Your task to perform on an android device: Go to Yahoo.com Image 0: 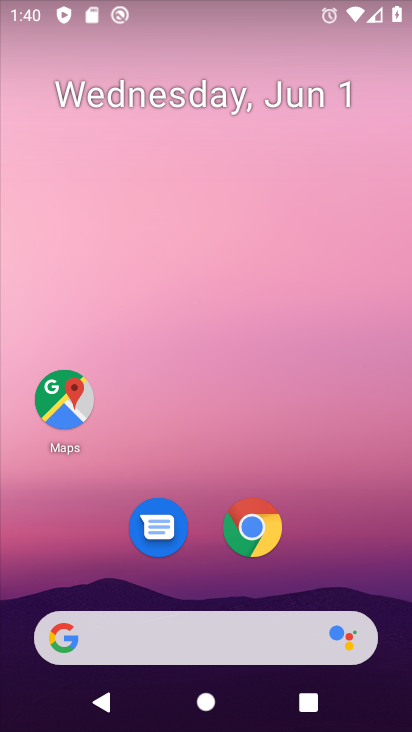
Step 0: click (263, 523)
Your task to perform on an android device: Go to Yahoo.com Image 1: 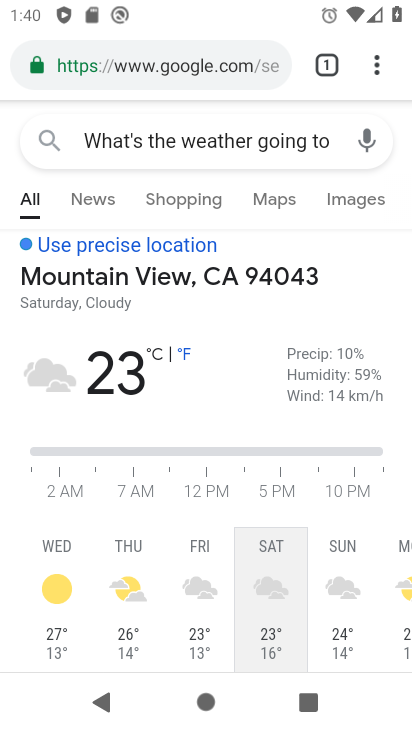
Step 1: click (214, 57)
Your task to perform on an android device: Go to Yahoo.com Image 2: 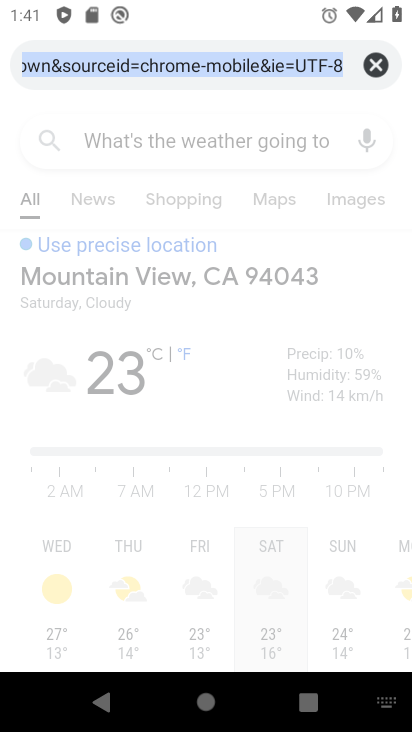
Step 2: type "yahoo.com"
Your task to perform on an android device: Go to Yahoo.com Image 3: 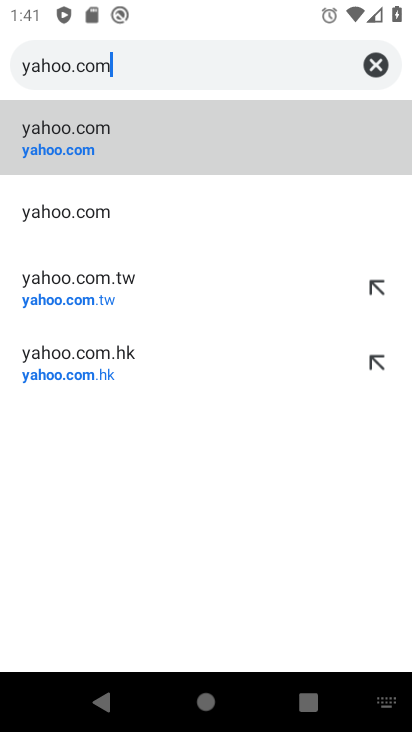
Step 3: click (185, 110)
Your task to perform on an android device: Go to Yahoo.com Image 4: 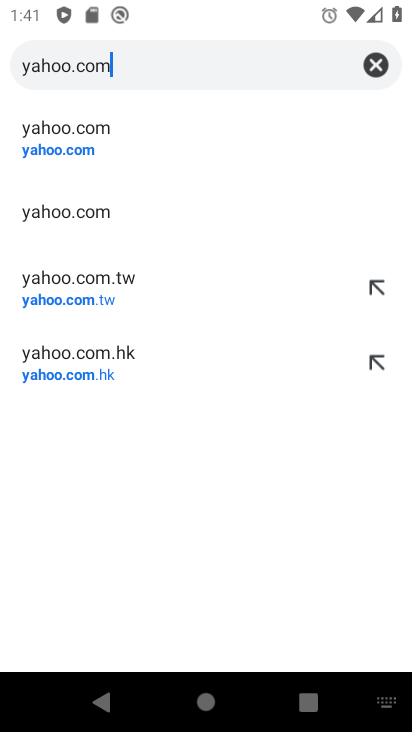
Step 4: click (84, 144)
Your task to perform on an android device: Go to Yahoo.com Image 5: 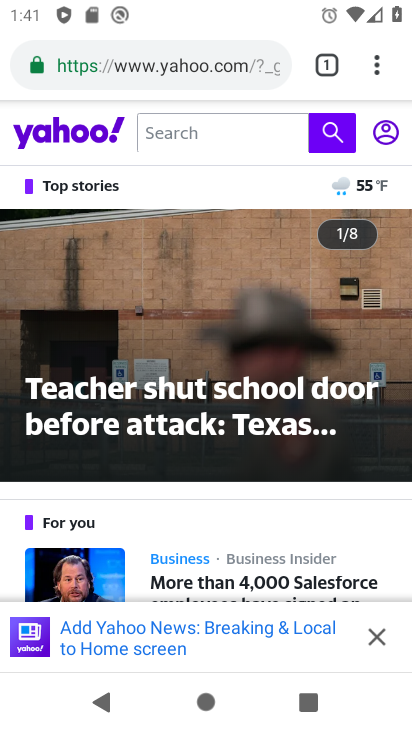
Step 5: task complete